Your task to perform on an android device: Open location settings Image 0: 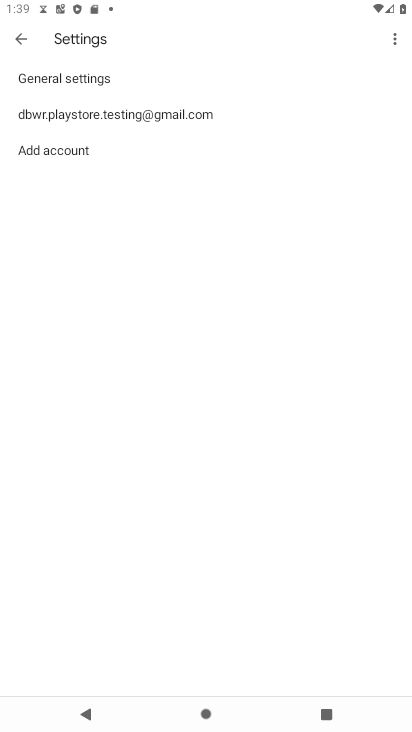
Step 0: press back button
Your task to perform on an android device: Open location settings Image 1: 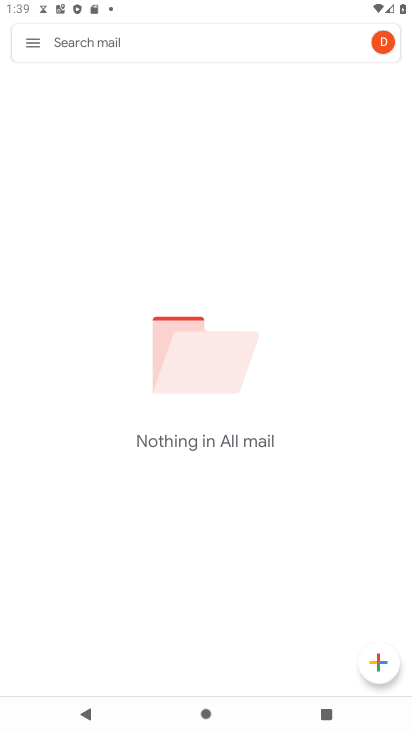
Step 1: press back button
Your task to perform on an android device: Open location settings Image 2: 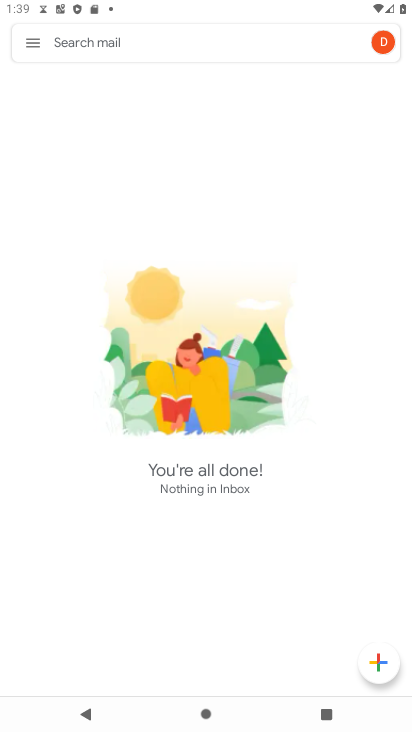
Step 2: press back button
Your task to perform on an android device: Open location settings Image 3: 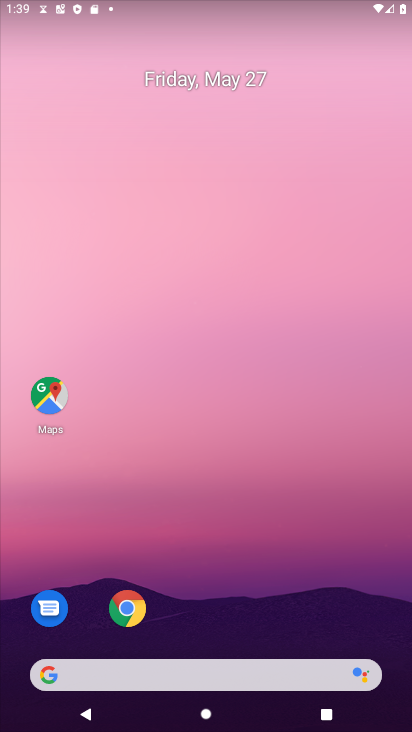
Step 3: drag from (210, 641) to (240, 135)
Your task to perform on an android device: Open location settings Image 4: 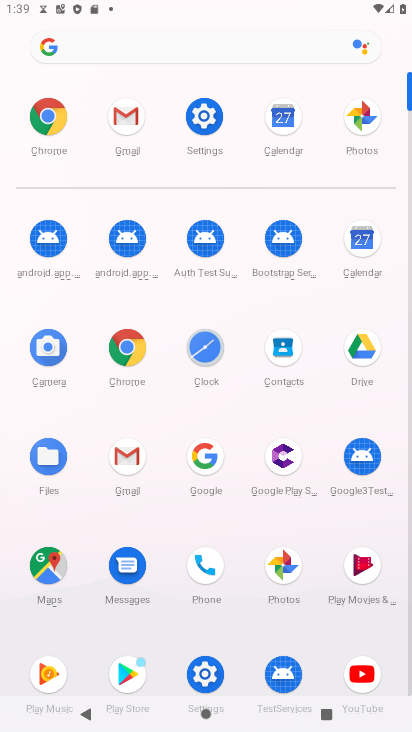
Step 4: click (200, 110)
Your task to perform on an android device: Open location settings Image 5: 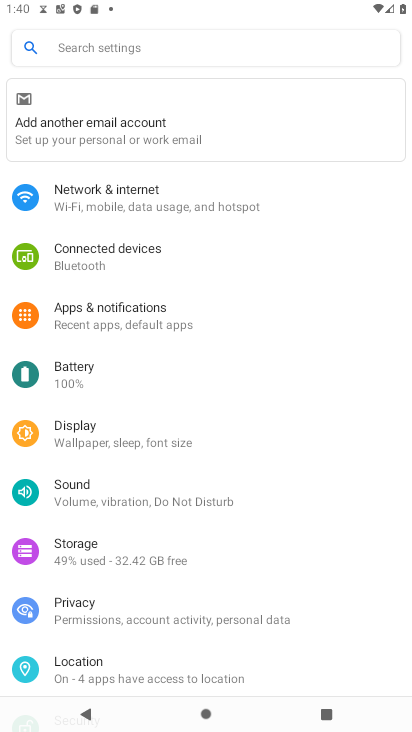
Step 5: click (87, 656)
Your task to perform on an android device: Open location settings Image 6: 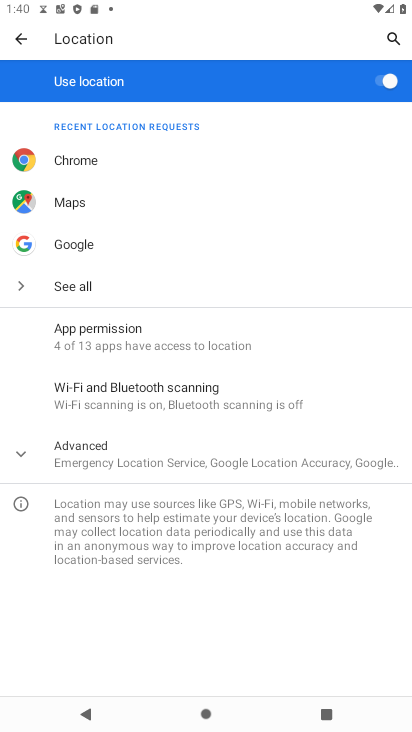
Step 6: task complete